Your task to perform on an android device: Open notification settings Image 0: 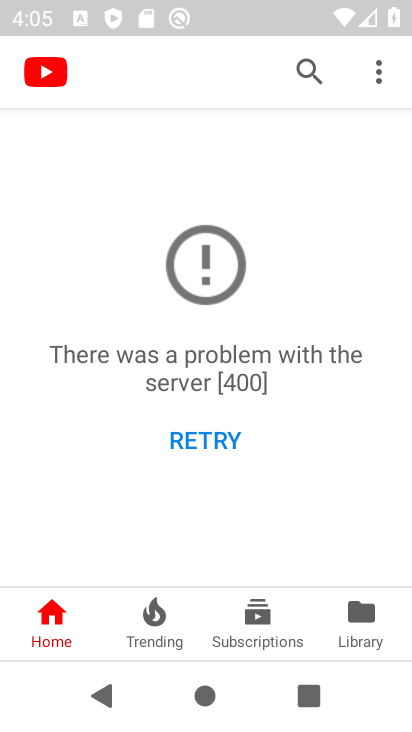
Step 0: press home button
Your task to perform on an android device: Open notification settings Image 1: 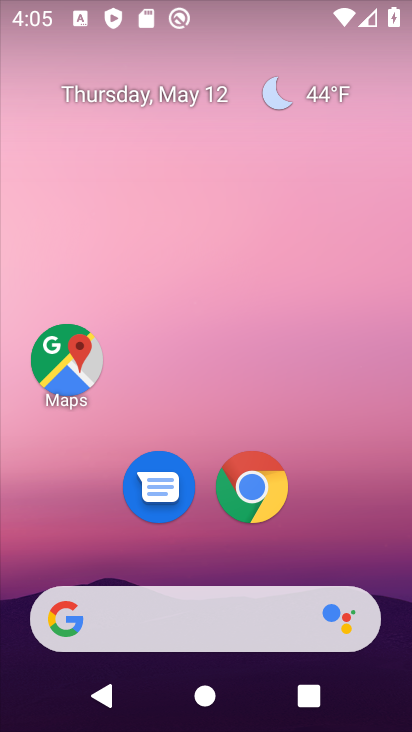
Step 1: drag from (201, 555) to (234, 125)
Your task to perform on an android device: Open notification settings Image 2: 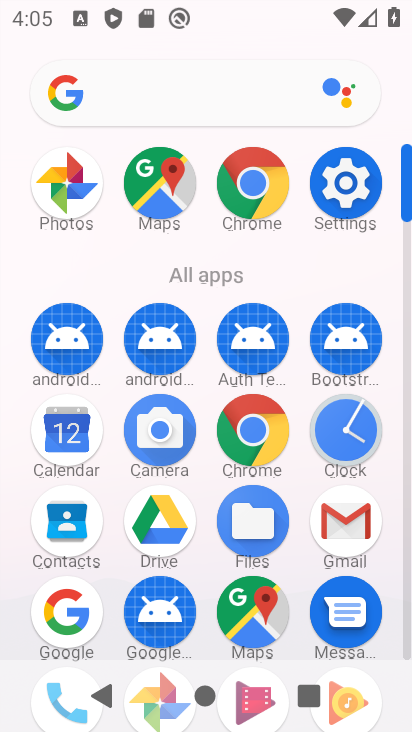
Step 2: click (362, 189)
Your task to perform on an android device: Open notification settings Image 3: 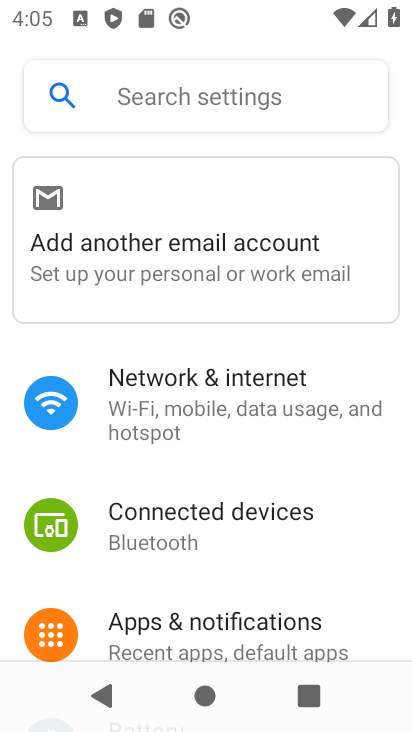
Step 3: click (251, 621)
Your task to perform on an android device: Open notification settings Image 4: 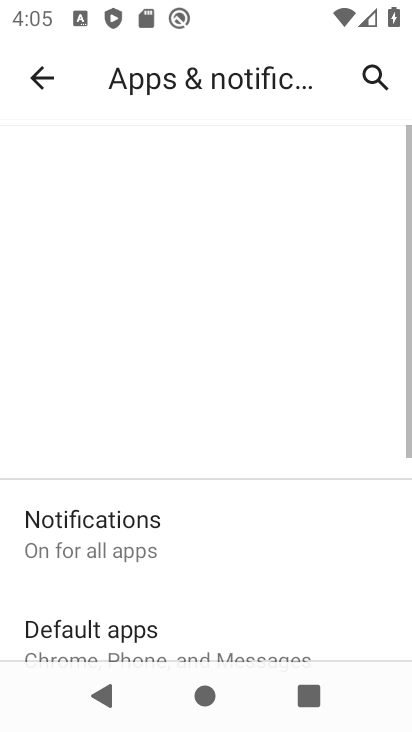
Step 4: task complete